Your task to perform on an android device: Open settings Image 0: 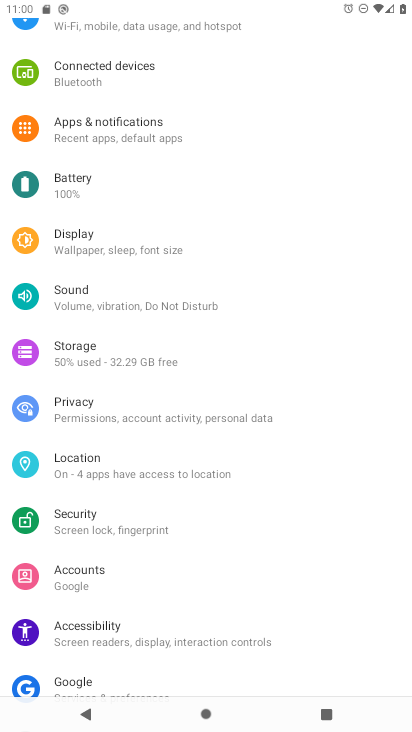
Step 0: drag from (240, 142) to (202, 564)
Your task to perform on an android device: Open settings Image 1: 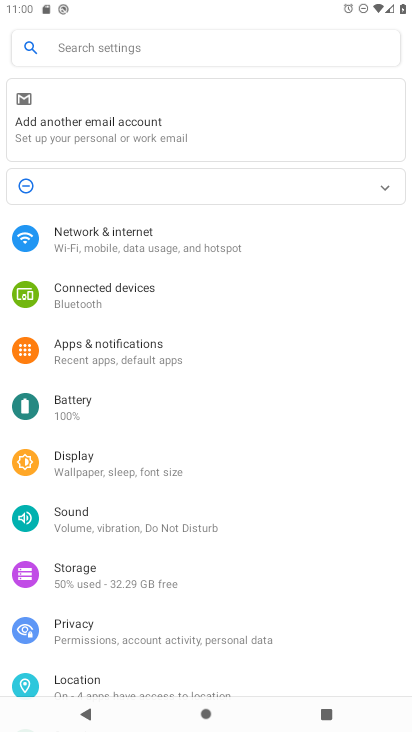
Step 1: task complete